Your task to perform on an android device: turn smart compose on in the gmail app Image 0: 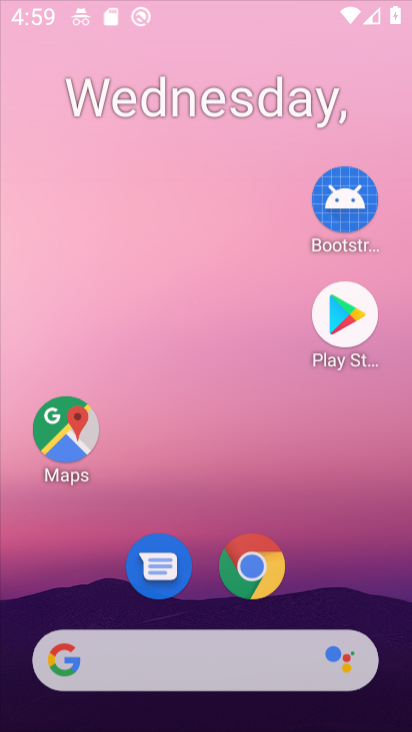
Step 0: drag from (257, 222) to (243, 60)
Your task to perform on an android device: turn smart compose on in the gmail app Image 1: 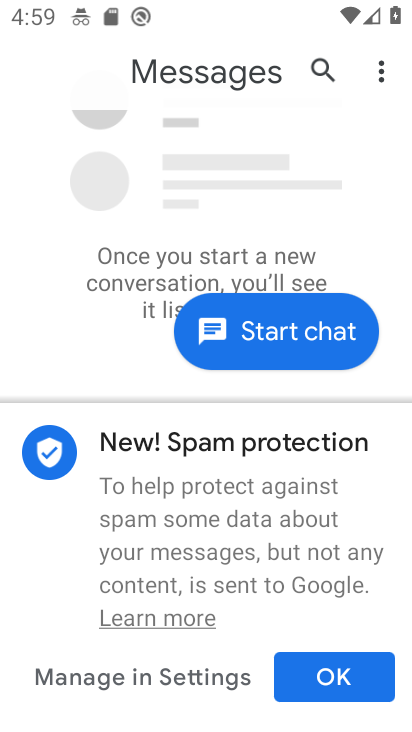
Step 1: press home button
Your task to perform on an android device: turn smart compose on in the gmail app Image 2: 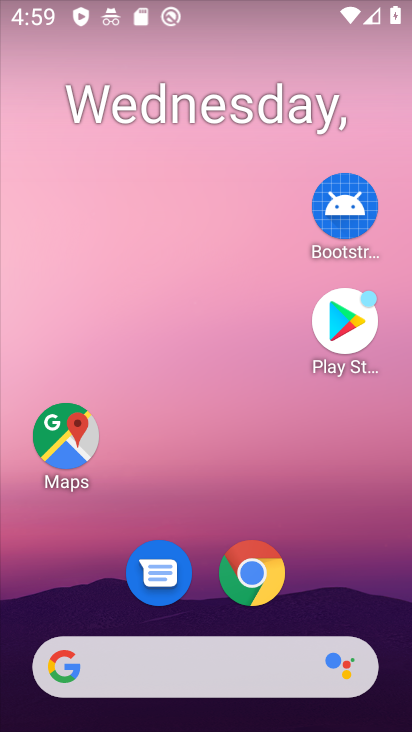
Step 2: drag from (320, 585) to (335, 100)
Your task to perform on an android device: turn smart compose on in the gmail app Image 3: 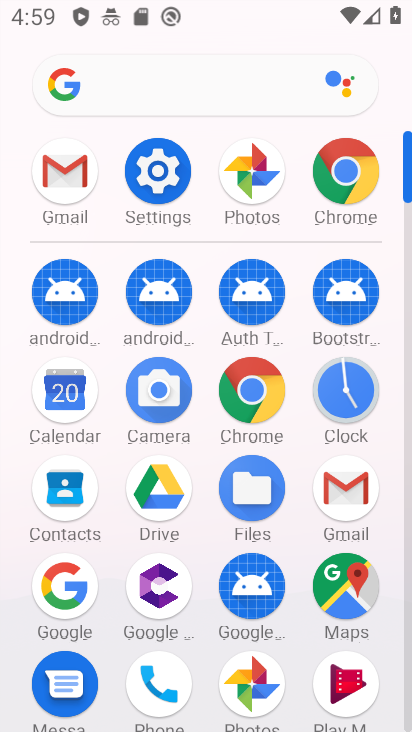
Step 3: click (79, 194)
Your task to perform on an android device: turn smart compose on in the gmail app Image 4: 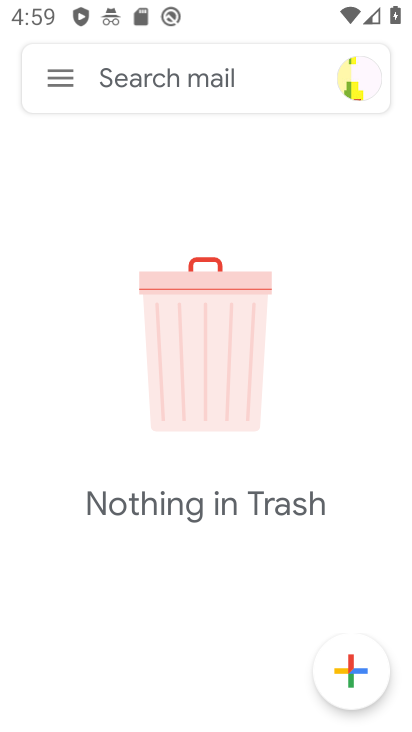
Step 4: click (48, 85)
Your task to perform on an android device: turn smart compose on in the gmail app Image 5: 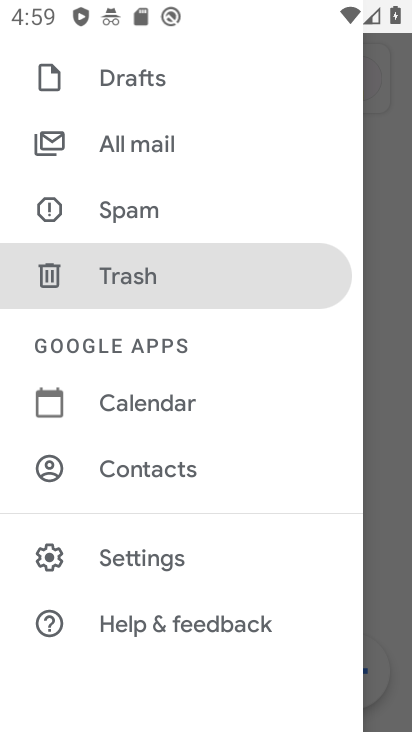
Step 5: click (191, 551)
Your task to perform on an android device: turn smart compose on in the gmail app Image 6: 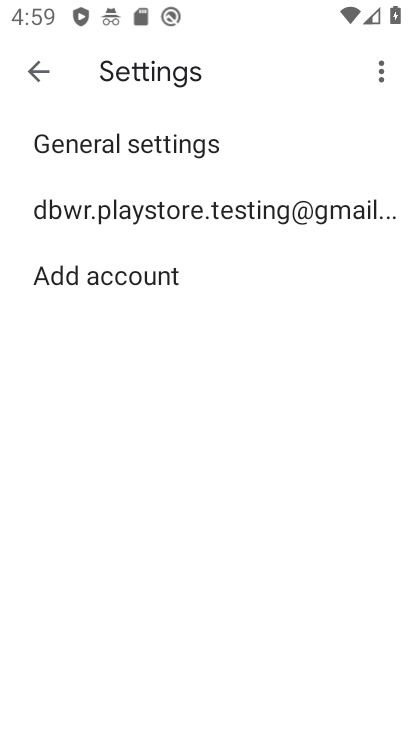
Step 6: click (158, 206)
Your task to perform on an android device: turn smart compose on in the gmail app Image 7: 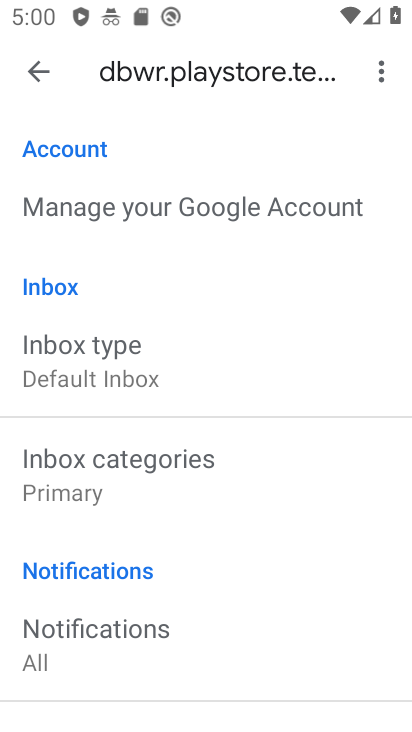
Step 7: task complete